Your task to perform on an android device: View the shopping cart on costco.com. Search for jbl charge 4 on costco.com, select the first entry, and add it to the cart. Image 0: 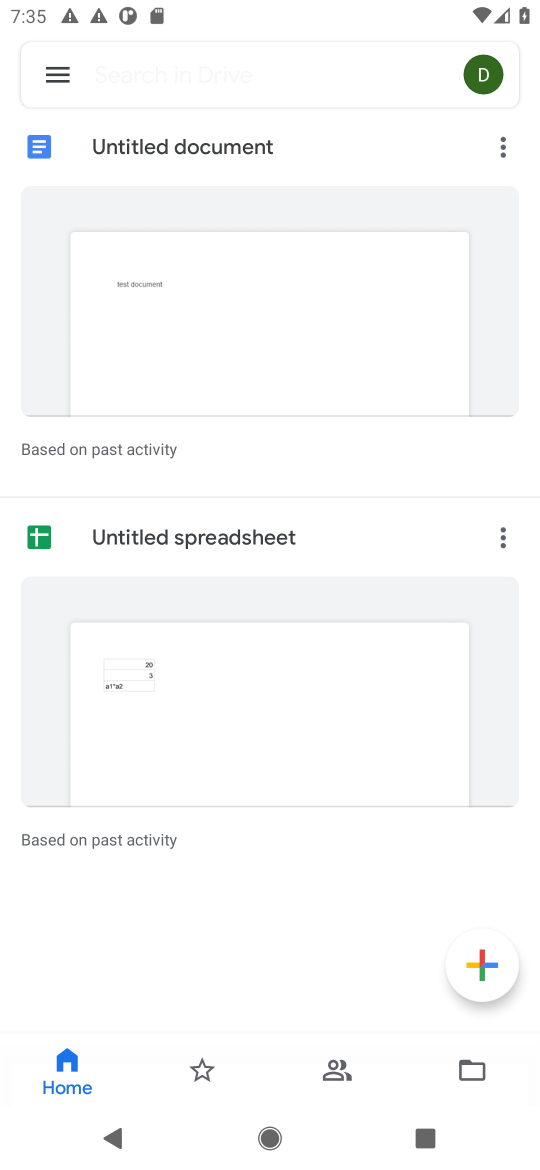
Step 0: press home button
Your task to perform on an android device: View the shopping cart on costco.com. Search for jbl charge 4 on costco.com, select the first entry, and add it to the cart. Image 1: 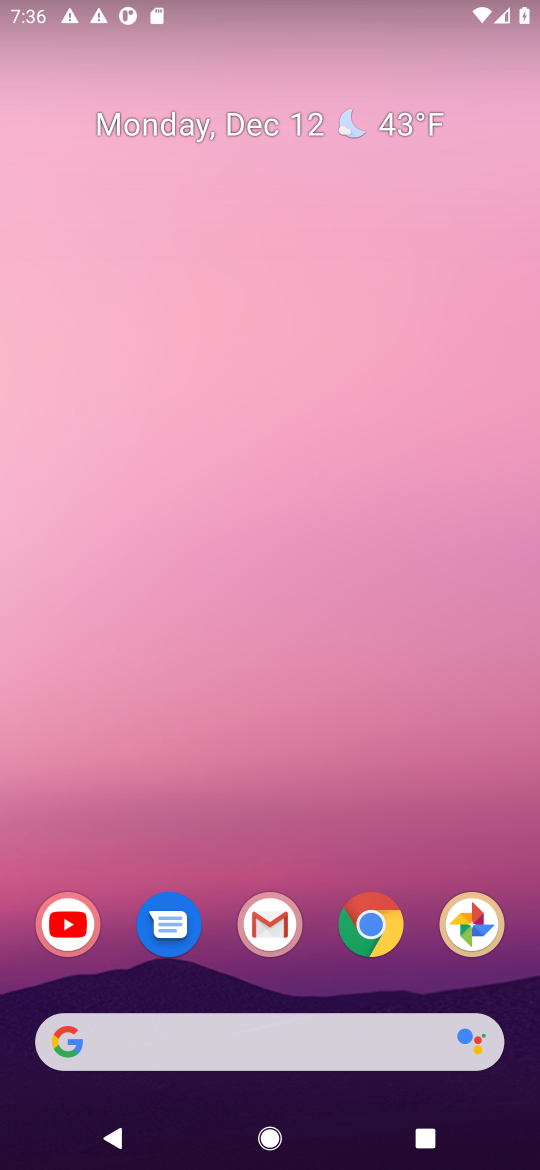
Step 1: click (208, 1033)
Your task to perform on an android device: View the shopping cart on costco.com. Search for jbl charge 4 on costco.com, select the first entry, and add it to the cart. Image 2: 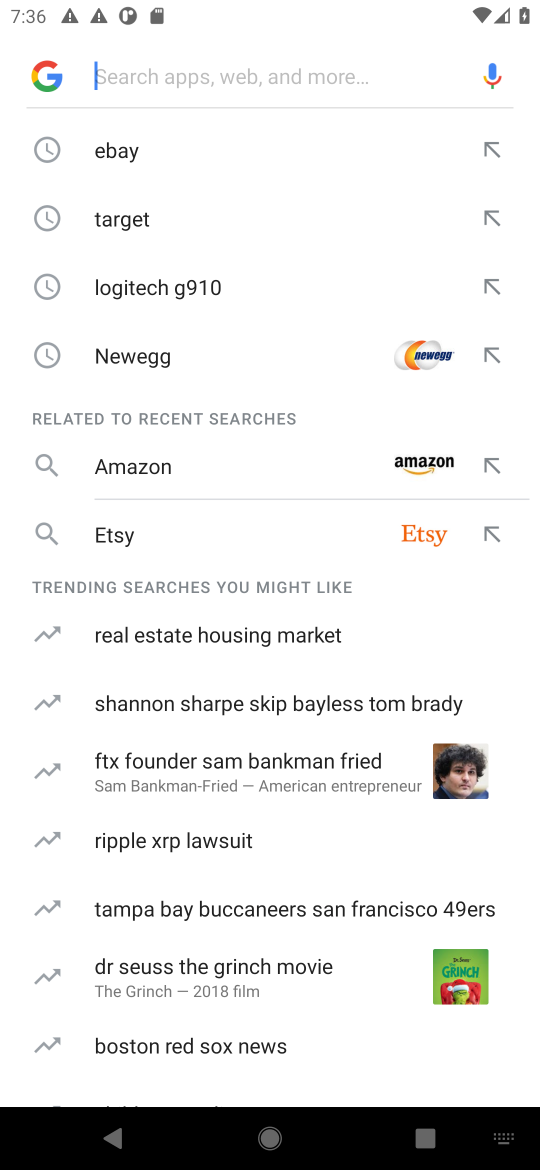
Step 2: type "costco.com"
Your task to perform on an android device: View the shopping cart on costco.com. Search for jbl charge 4 on costco.com, select the first entry, and add it to the cart. Image 3: 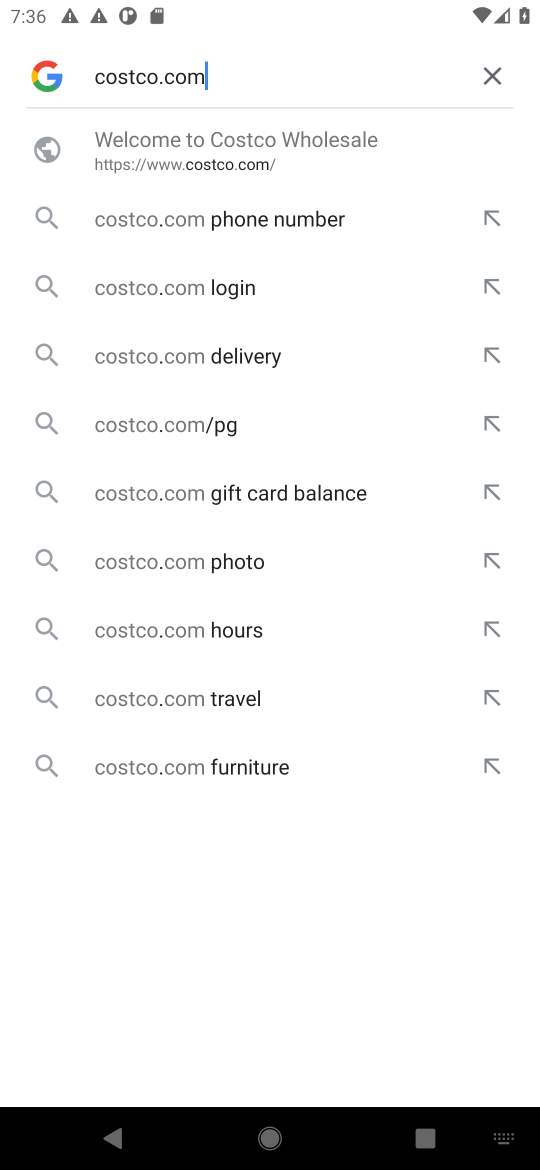
Step 3: click (183, 149)
Your task to perform on an android device: View the shopping cart on costco.com. Search for jbl charge 4 on costco.com, select the first entry, and add it to the cart. Image 4: 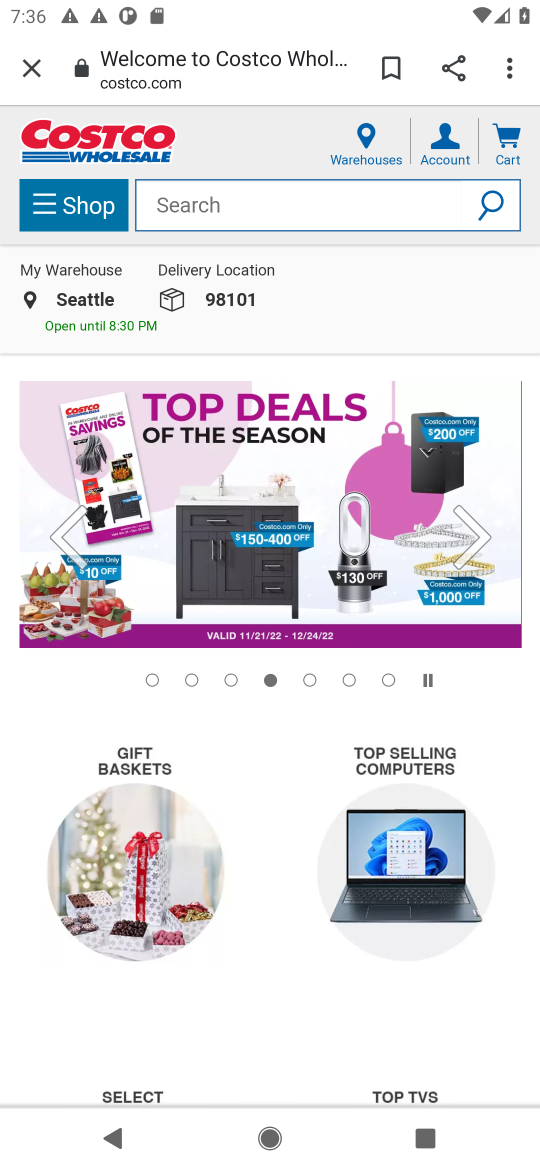
Step 4: click (331, 212)
Your task to perform on an android device: View the shopping cart on costco.com. Search for jbl charge 4 on costco.com, select the first entry, and add it to the cart. Image 5: 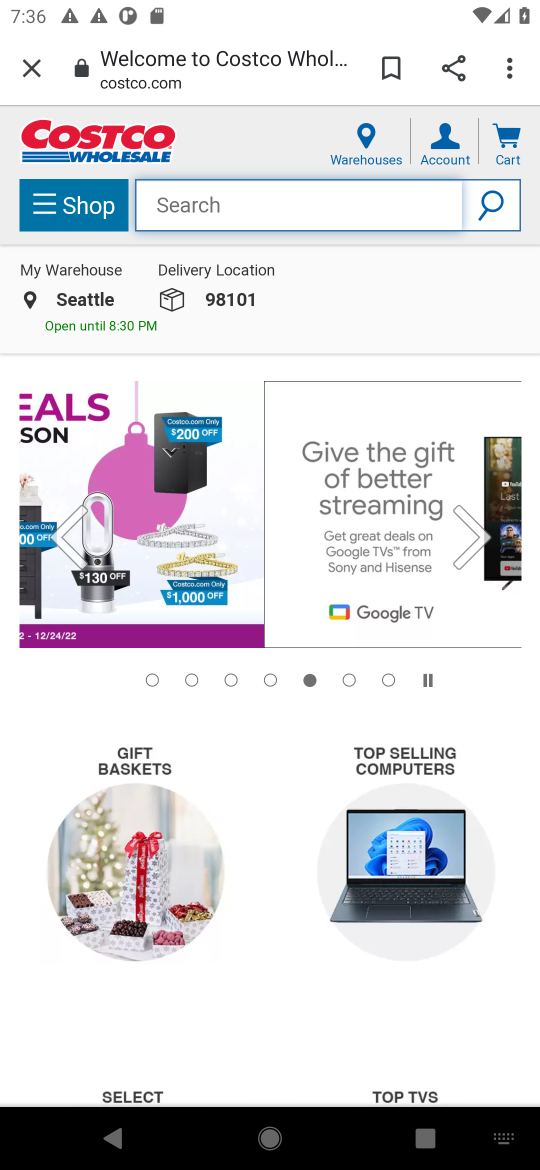
Step 5: type " jbl charge 4 "
Your task to perform on an android device: View the shopping cart on costco.com. Search for jbl charge 4 on costco.com, select the first entry, and add it to the cart. Image 6: 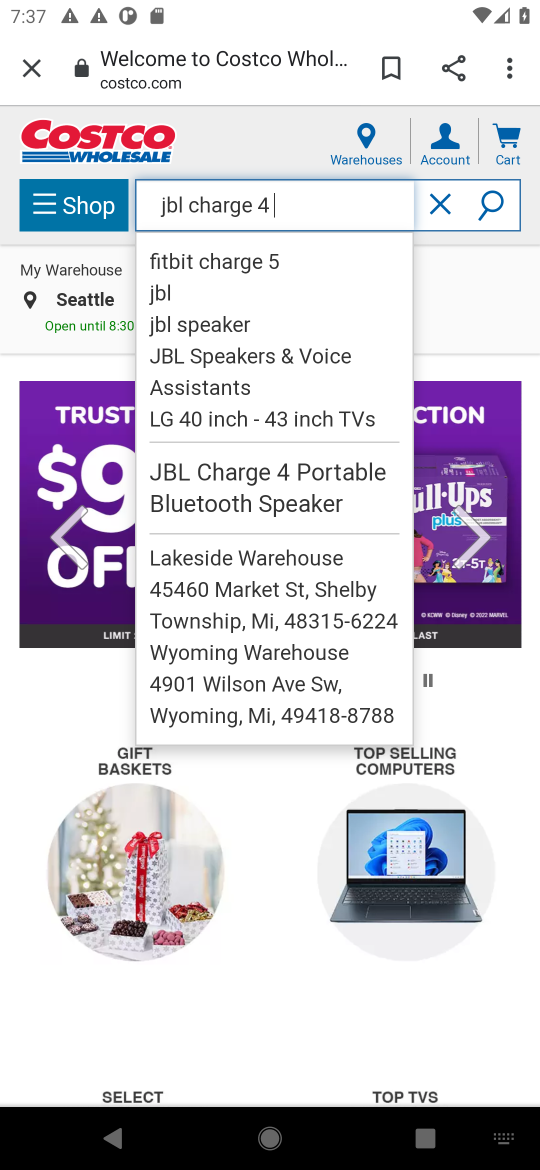
Step 6: click (499, 209)
Your task to perform on an android device: View the shopping cart on costco.com. Search for jbl charge 4 on costco.com, select the first entry, and add it to the cart. Image 7: 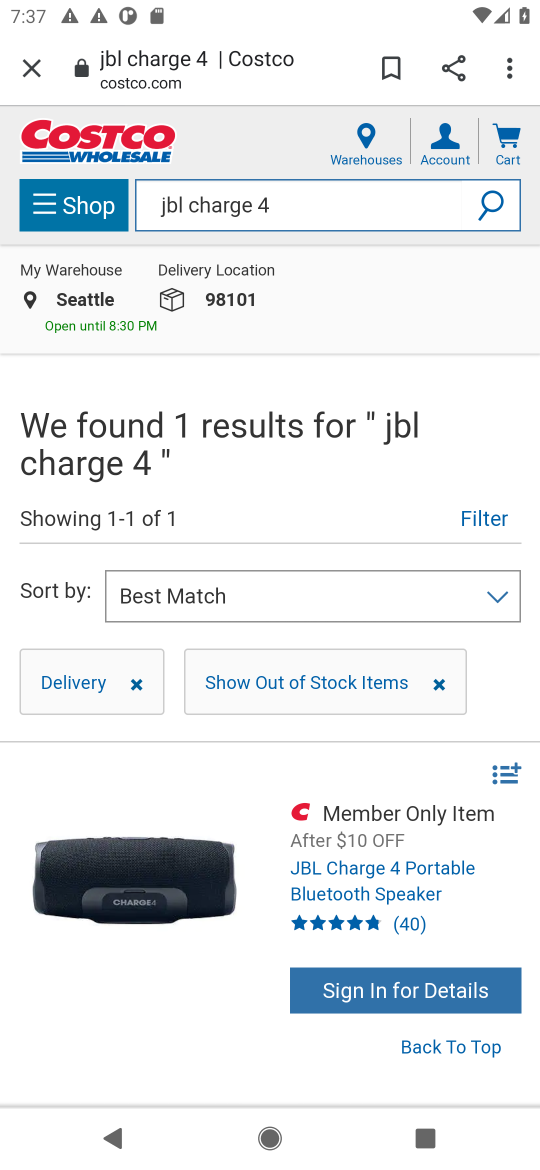
Step 7: click (364, 986)
Your task to perform on an android device: View the shopping cart on costco.com. Search for jbl charge 4 on costco.com, select the first entry, and add it to the cart. Image 8: 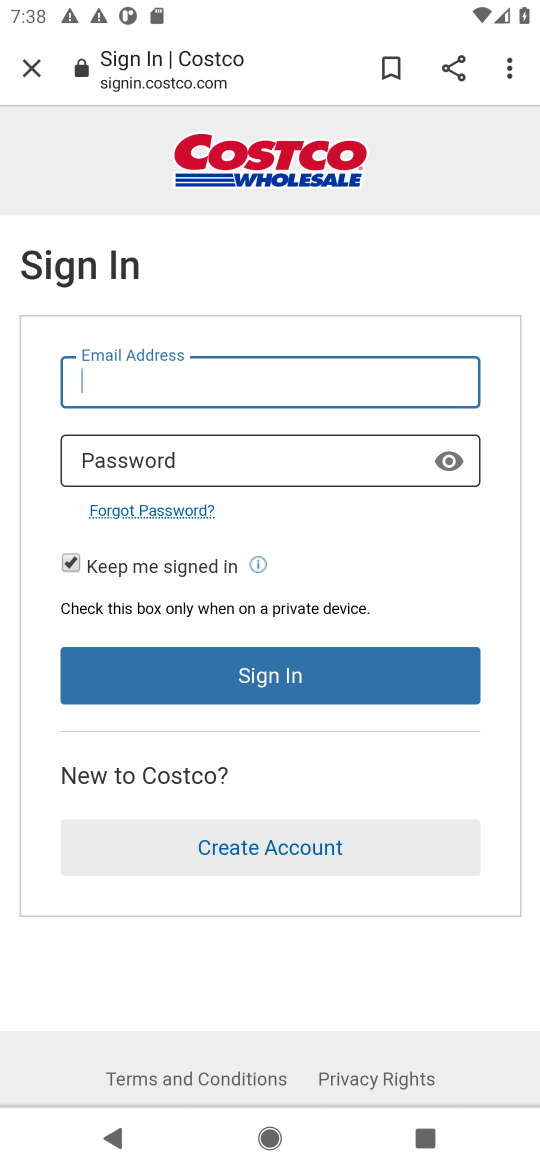
Step 8: click (40, 63)
Your task to perform on an android device: View the shopping cart on costco.com. Search for jbl charge 4 on costco.com, select the first entry, and add it to the cart. Image 9: 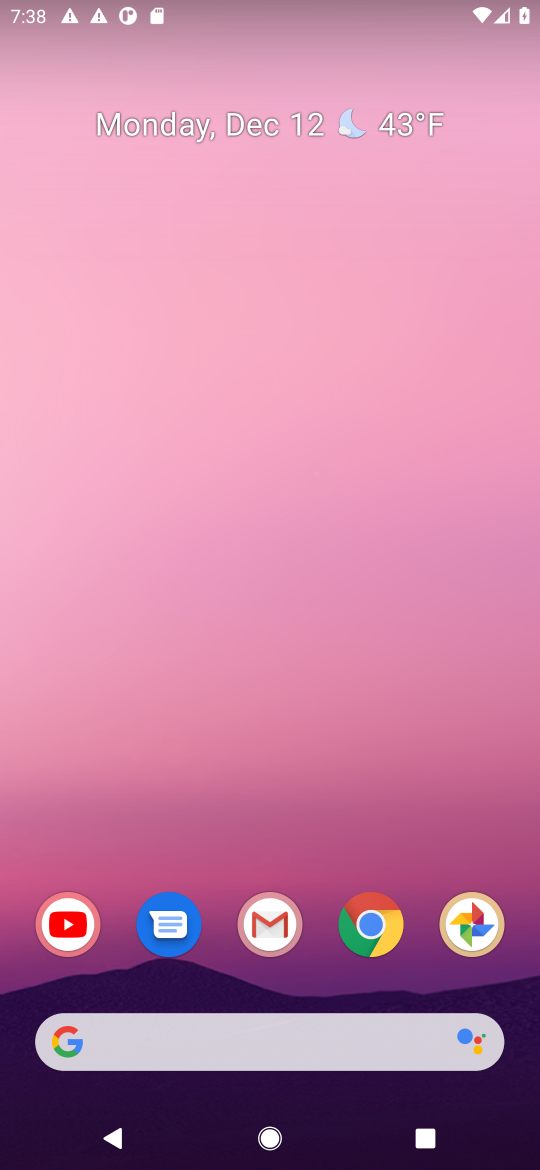
Step 9: click (256, 1041)
Your task to perform on an android device: View the shopping cart on costco.com. Search for jbl charge 4 on costco.com, select the first entry, and add it to the cart. Image 10: 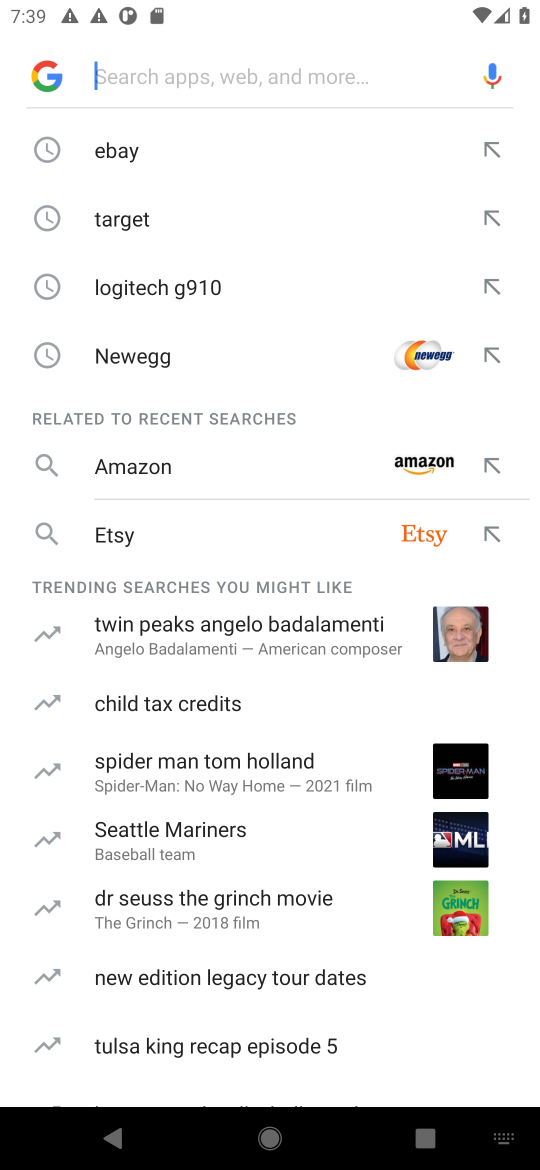
Step 10: type "costco.com"
Your task to perform on an android device: View the shopping cart on costco.com. Search for jbl charge 4 on costco.com, select the first entry, and add it to the cart. Image 11: 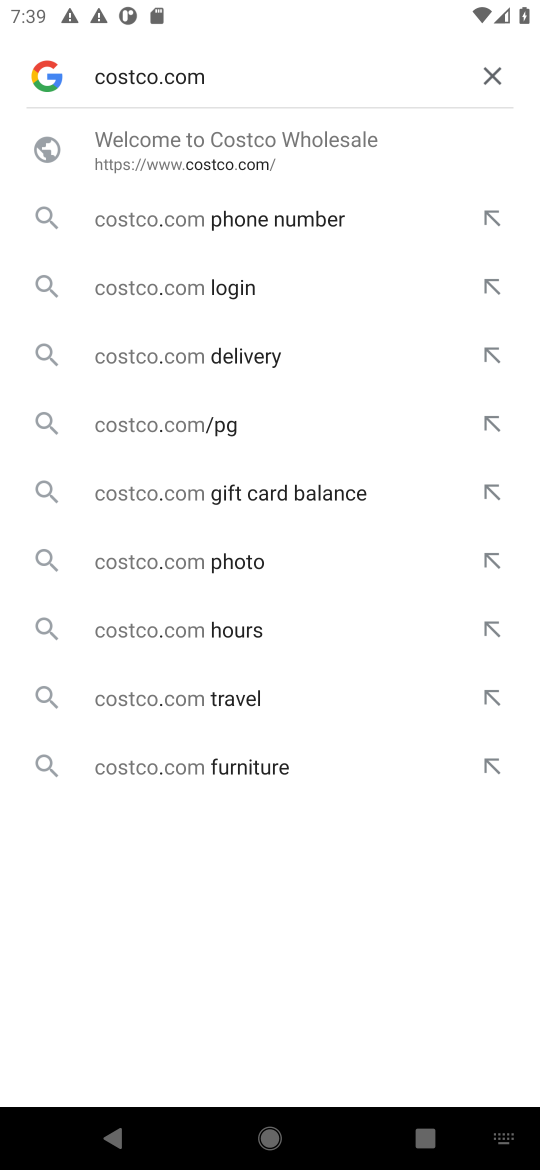
Step 11: click (137, 156)
Your task to perform on an android device: View the shopping cart on costco.com. Search for jbl charge 4 on costco.com, select the first entry, and add it to the cart. Image 12: 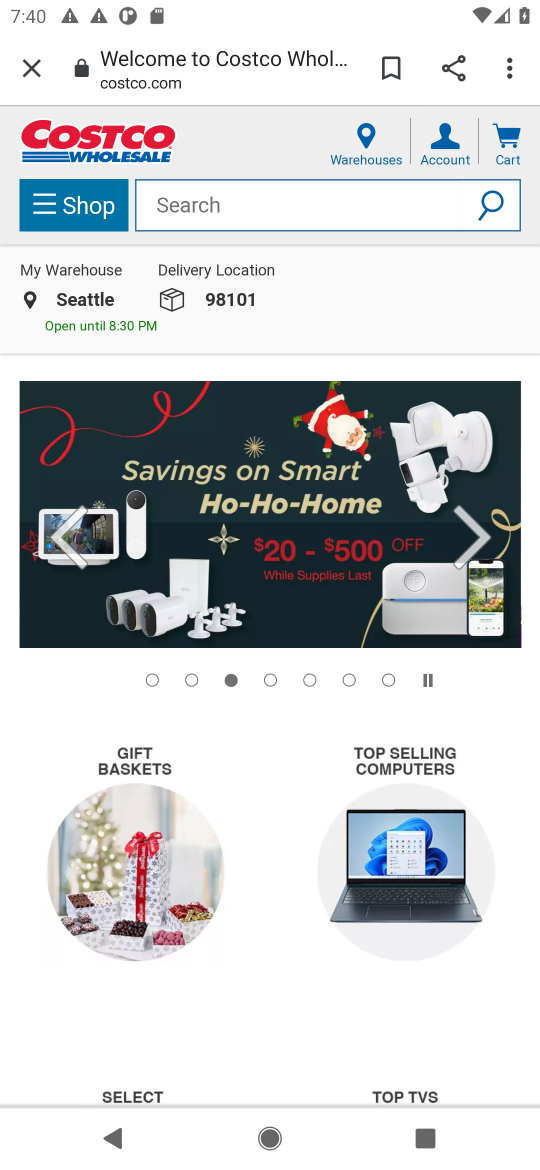
Step 12: click (312, 198)
Your task to perform on an android device: View the shopping cart on costco.com. Search for jbl charge 4 on costco.com, select the first entry, and add it to the cart. Image 13: 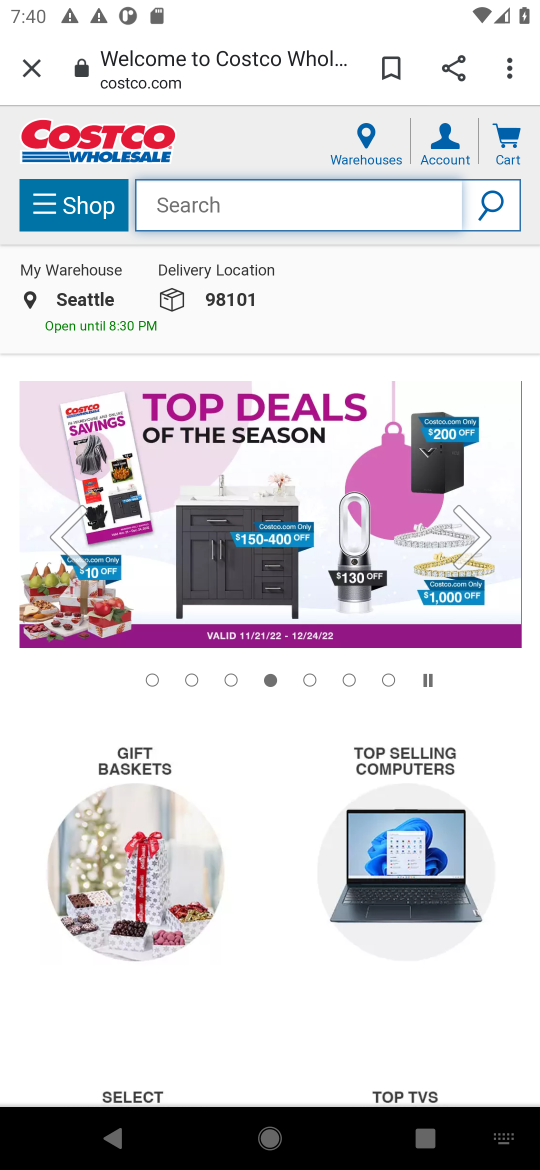
Step 13: type " jbl charge 4"
Your task to perform on an android device: View the shopping cart on costco.com. Search for jbl charge 4 on costco.com, select the first entry, and add it to the cart. Image 14: 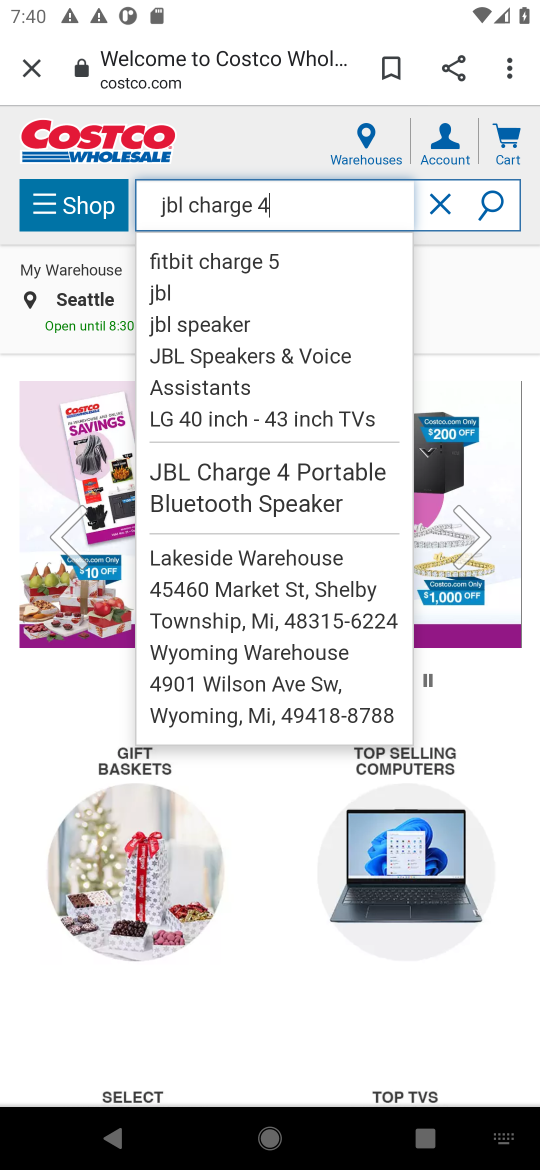
Step 14: click (498, 203)
Your task to perform on an android device: View the shopping cart on costco.com. Search for jbl charge 4 on costco.com, select the first entry, and add it to the cart. Image 15: 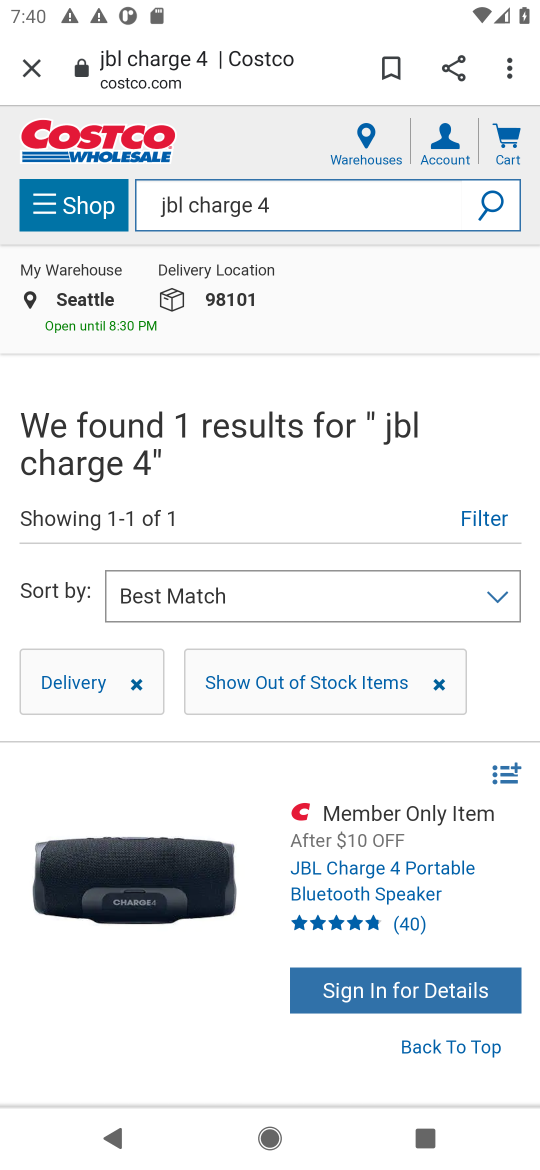
Step 15: click (385, 986)
Your task to perform on an android device: View the shopping cart on costco.com. Search for jbl charge 4 on costco.com, select the first entry, and add it to the cart. Image 16: 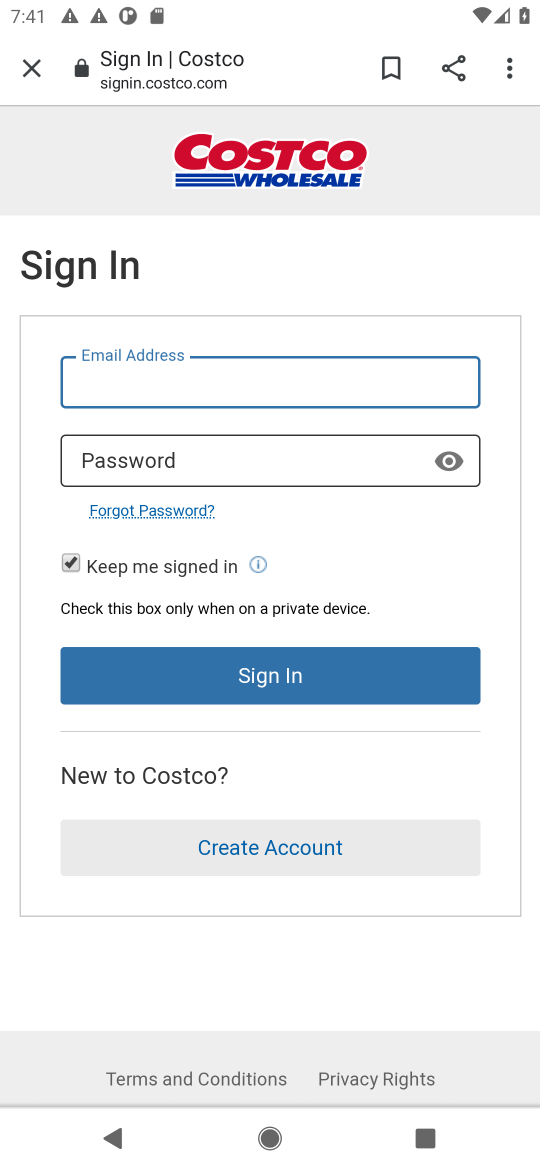
Step 16: task complete